Your task to perform on an android device: check out phone information Image 0: 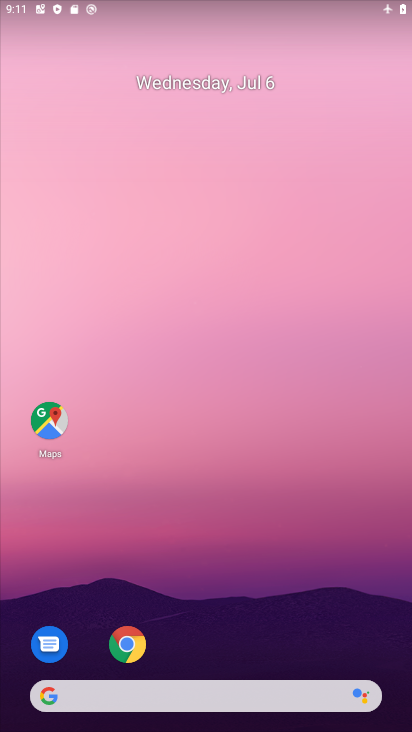
Step 0: drag from (246, 627) to (206, 73)
Your task to perform on an android device: check out phone information Image 1: 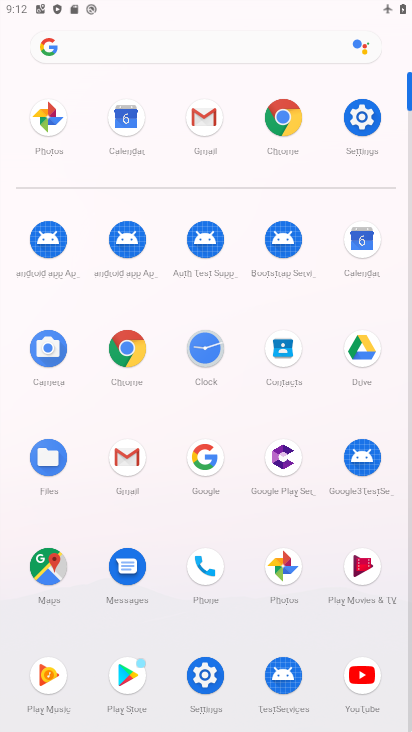
Step 1: click (350, 116)
Your task to perform on an android device: check out phone information Image 2: 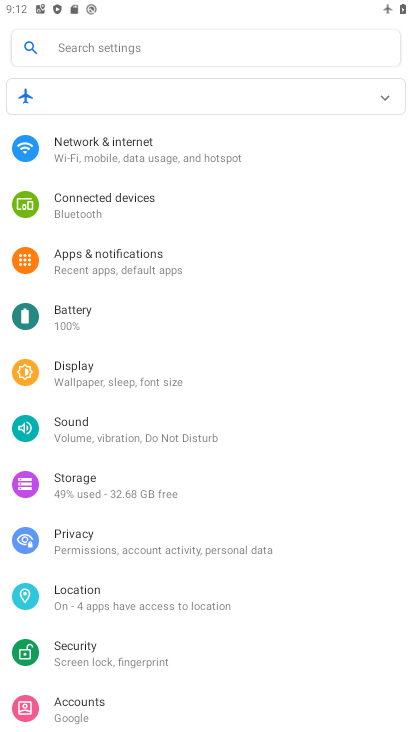
Step 2: drag from (152, 662) to (132, 190)
Your task to perform on an android device: check out phone information Image 3: 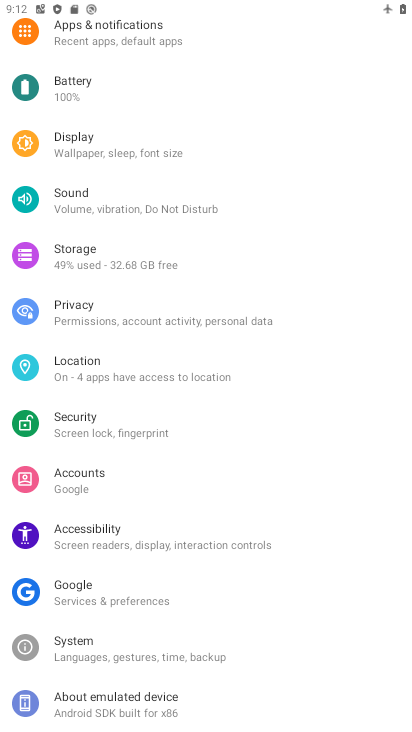
Step 3: click (200, 712)
Your task to perform on an android device: check out phone information Image 4: 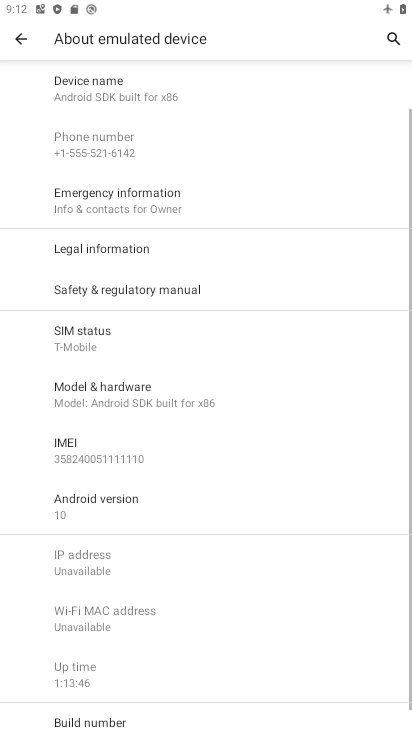
Step 4: task complete